Your task to perform on an android device: View the shopping cart on walmart. Add "sony triple a" to the cart on walmart Image 0: 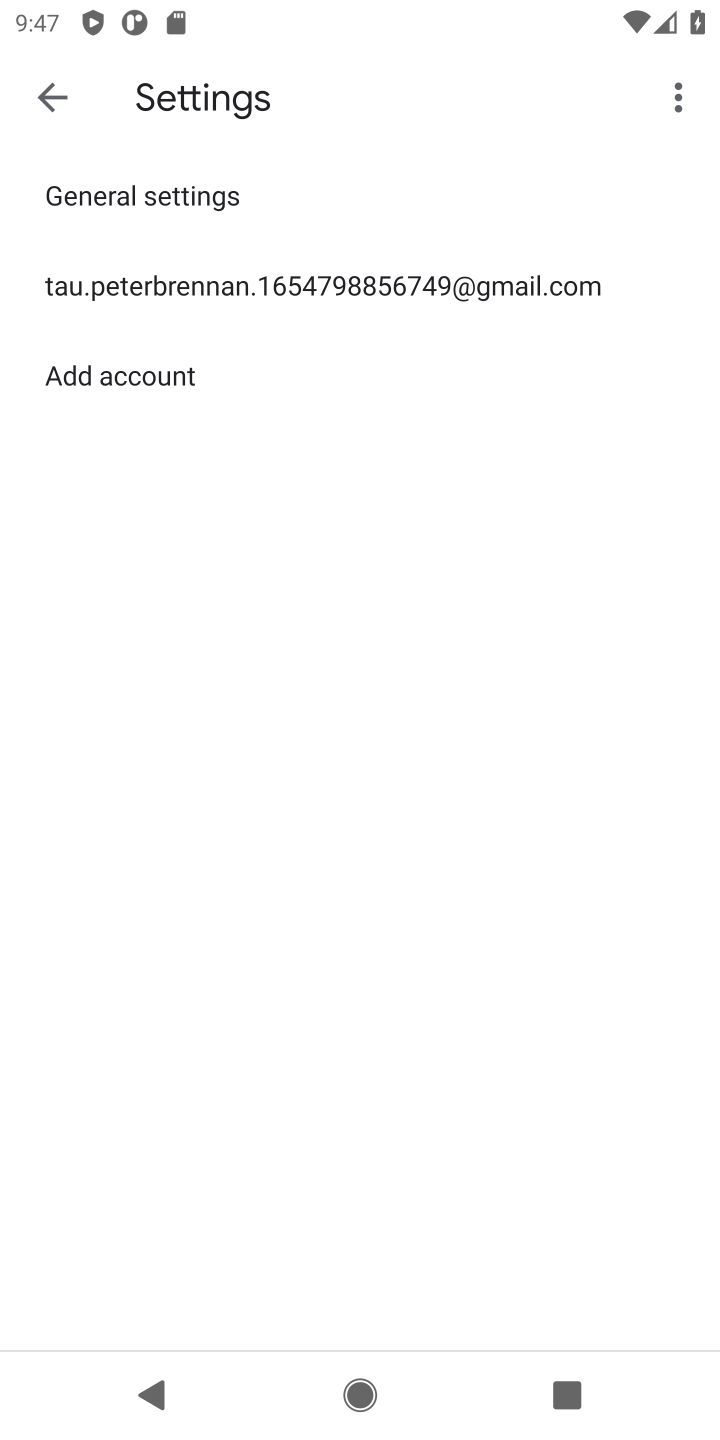
Step 0: press home button
Your task to perform on an android device: View the shopping cart on walmart. Add "sony triple a" to the cart on walmart Image 1: 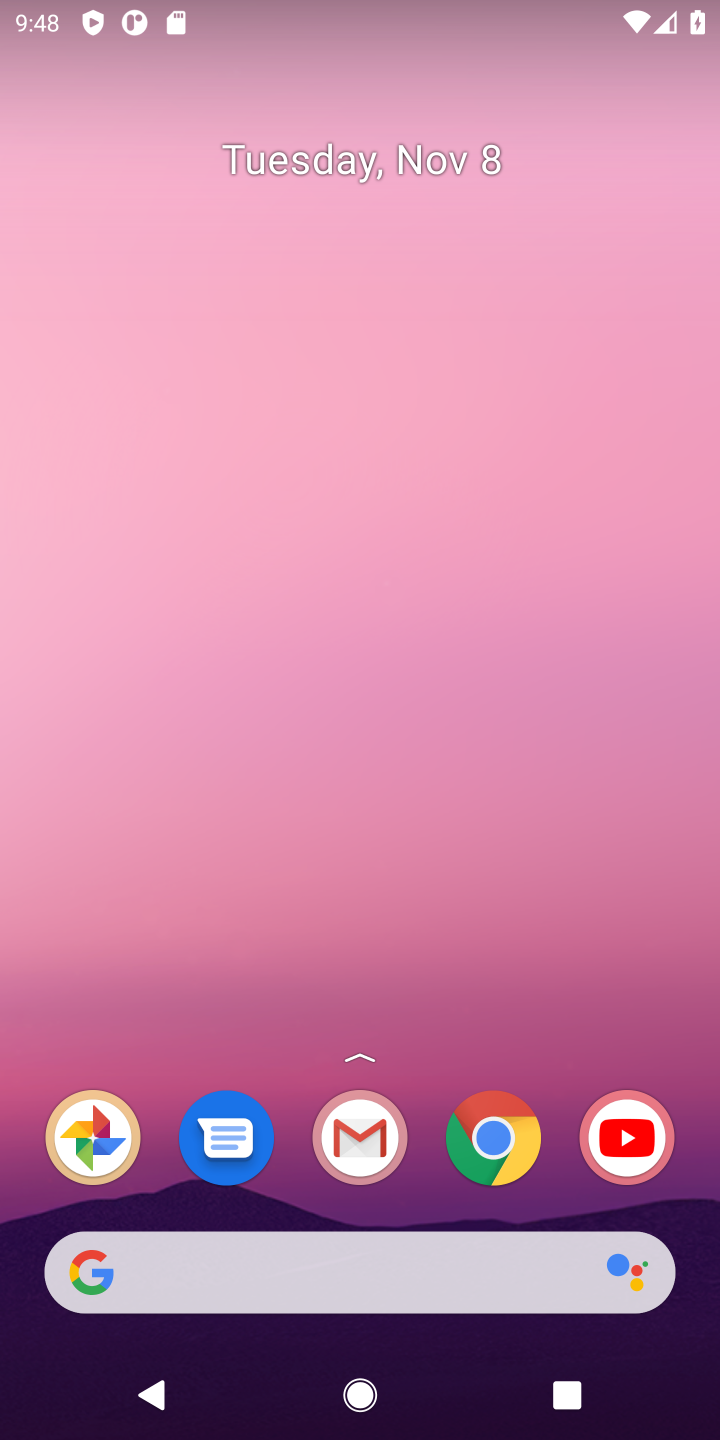
Step 1: click (482, 1150)
Your task to perform on an android device: View the shopping cart on walmart. Add "sony triple a" to the cart on walmart Image 2: 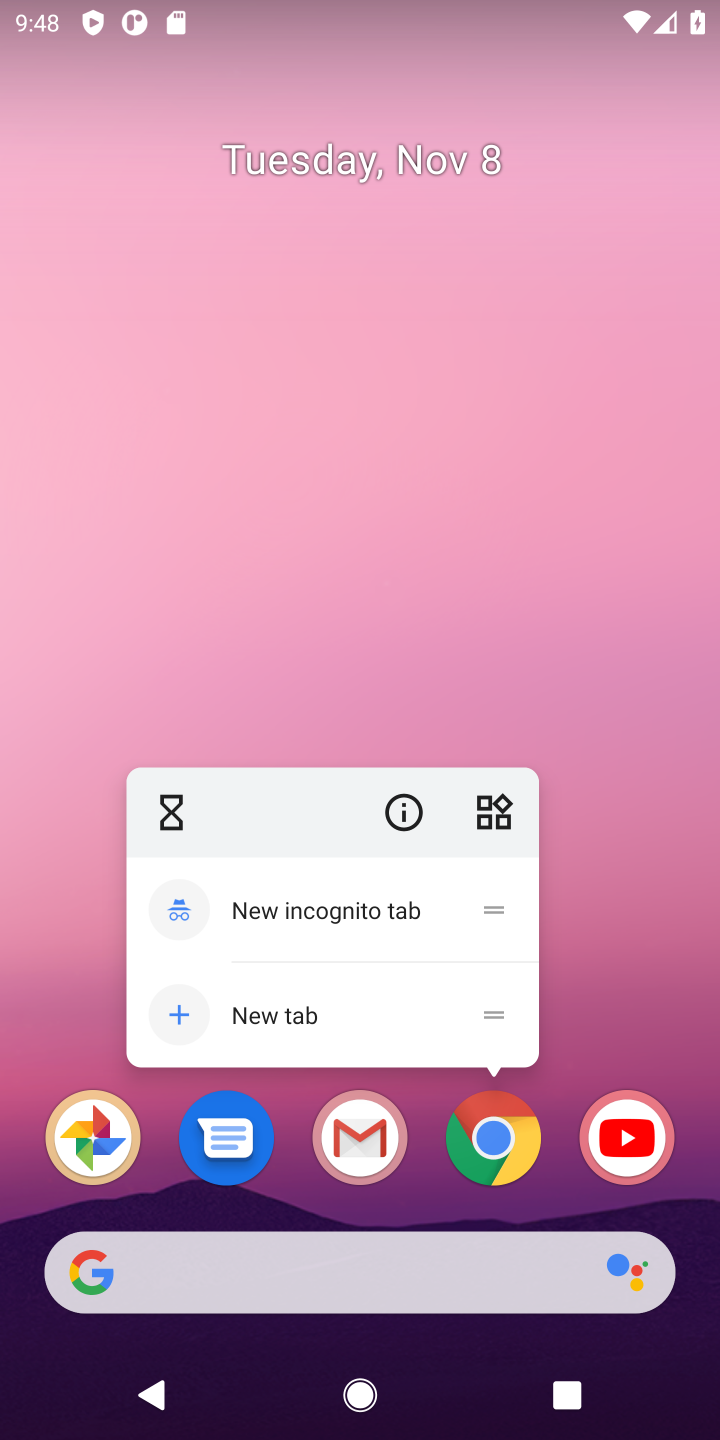
Step 2: click (510, 1120)
Your task to perform on an android device: View the shopping cart on walmart. Add "sony triple a" to the cart on walmart Image 3: 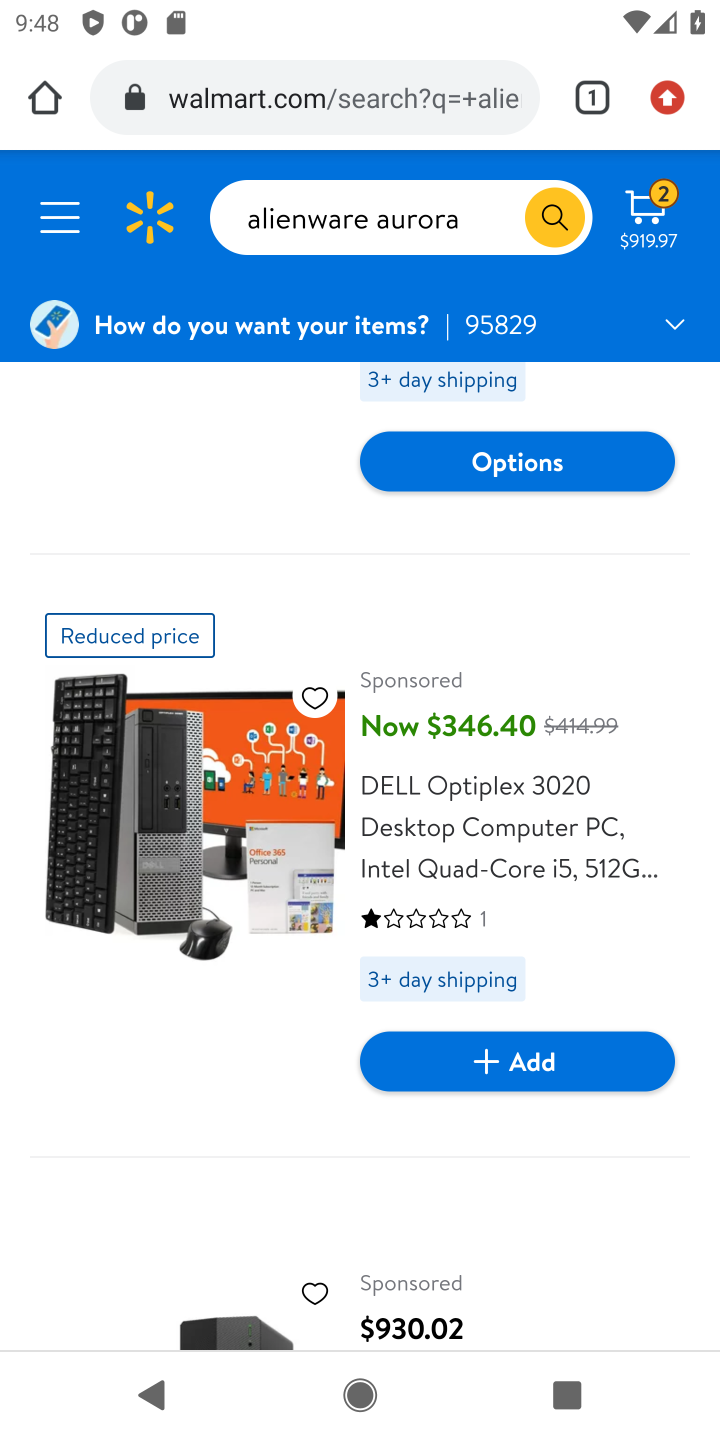
Step 3: click (492, 222)
Your task to perform on an android device: View the shopping cart on walmart. Add "sony triple a" to the cart on walmart Image 4: 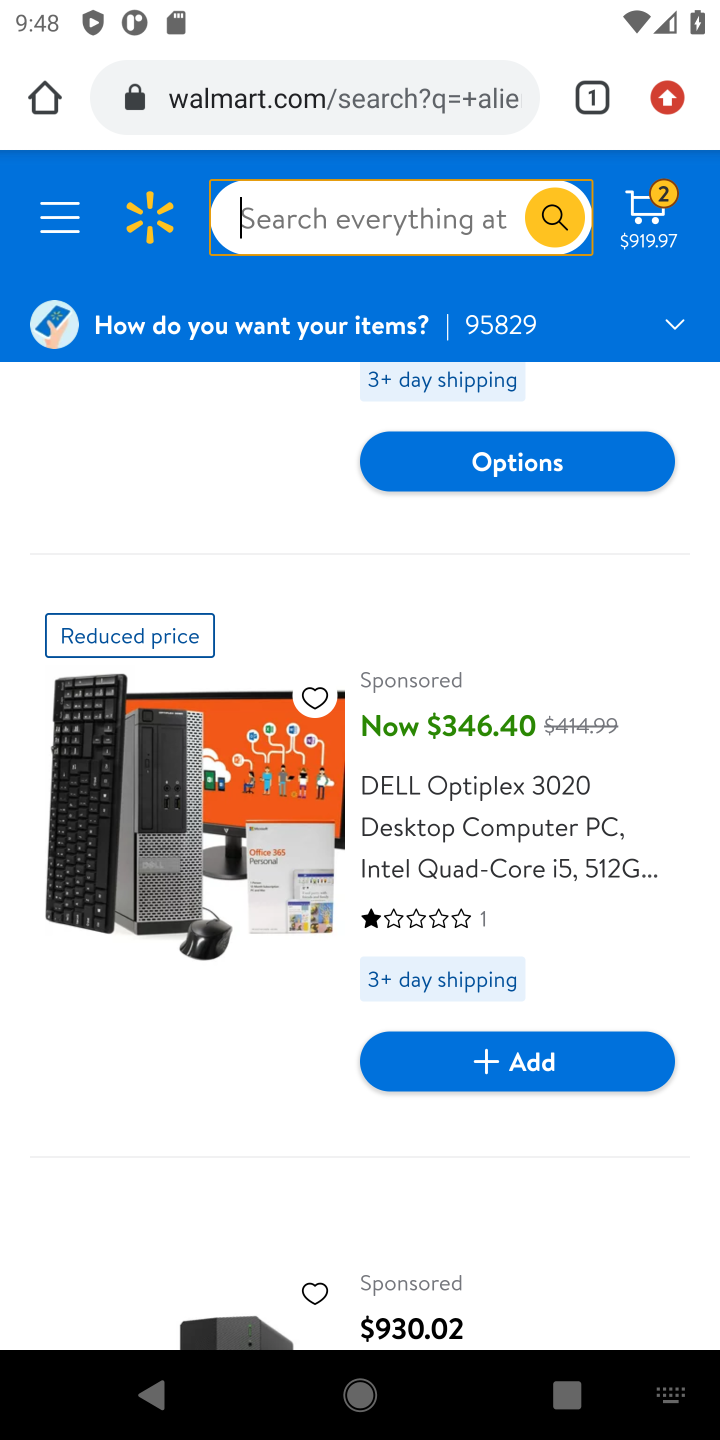
Step 4: click (414, 207)
Your task to perform on an android device: View the shopping cart on walmart. Add "sony triple a" to the cart on walmart Image 5: 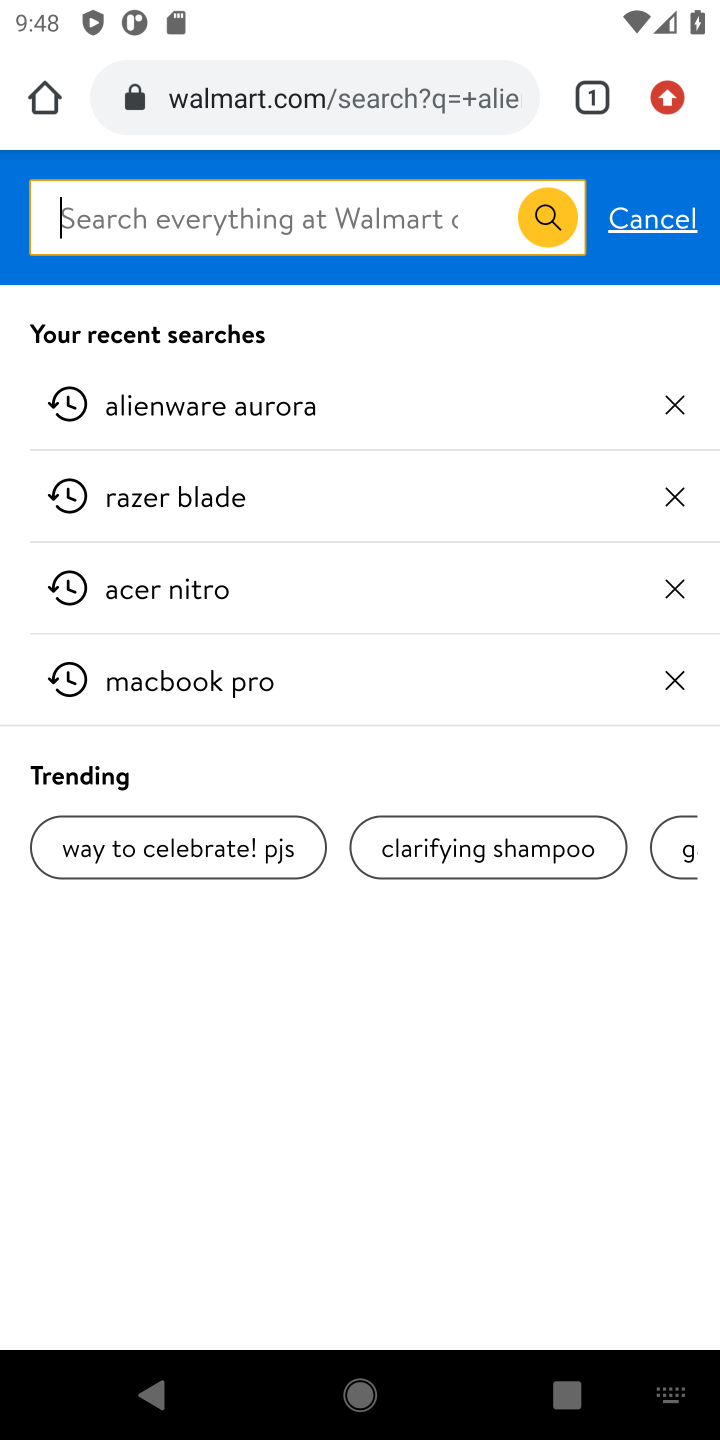
Step 5: type "sony triple a"
Your task to perform on an android device: View the shopping cart on walmart. Add "sony triple a" to the cart on walmart Image 6: 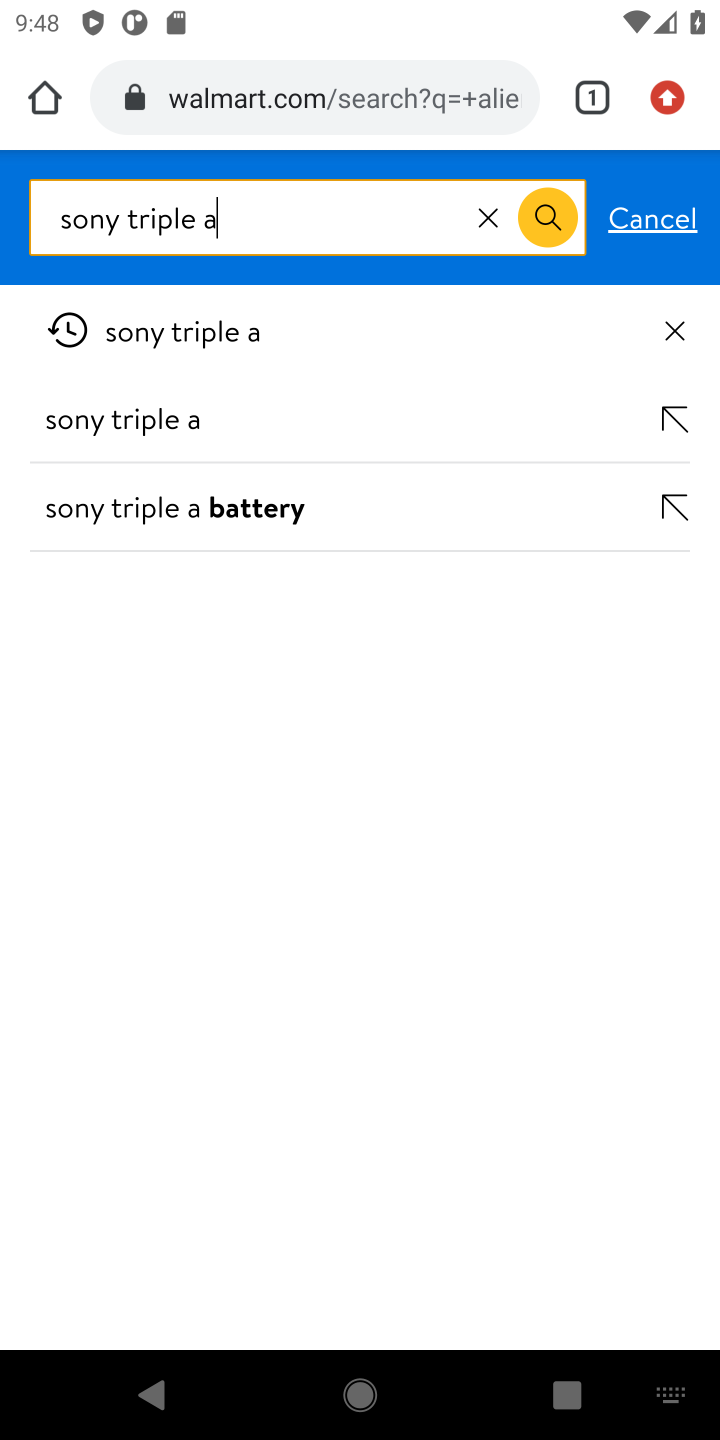
Step 6: press enter
Your task to perform on an android device: View the shopping cart on walmart. Add "sony triple a" to the cart on walmart Image 7: 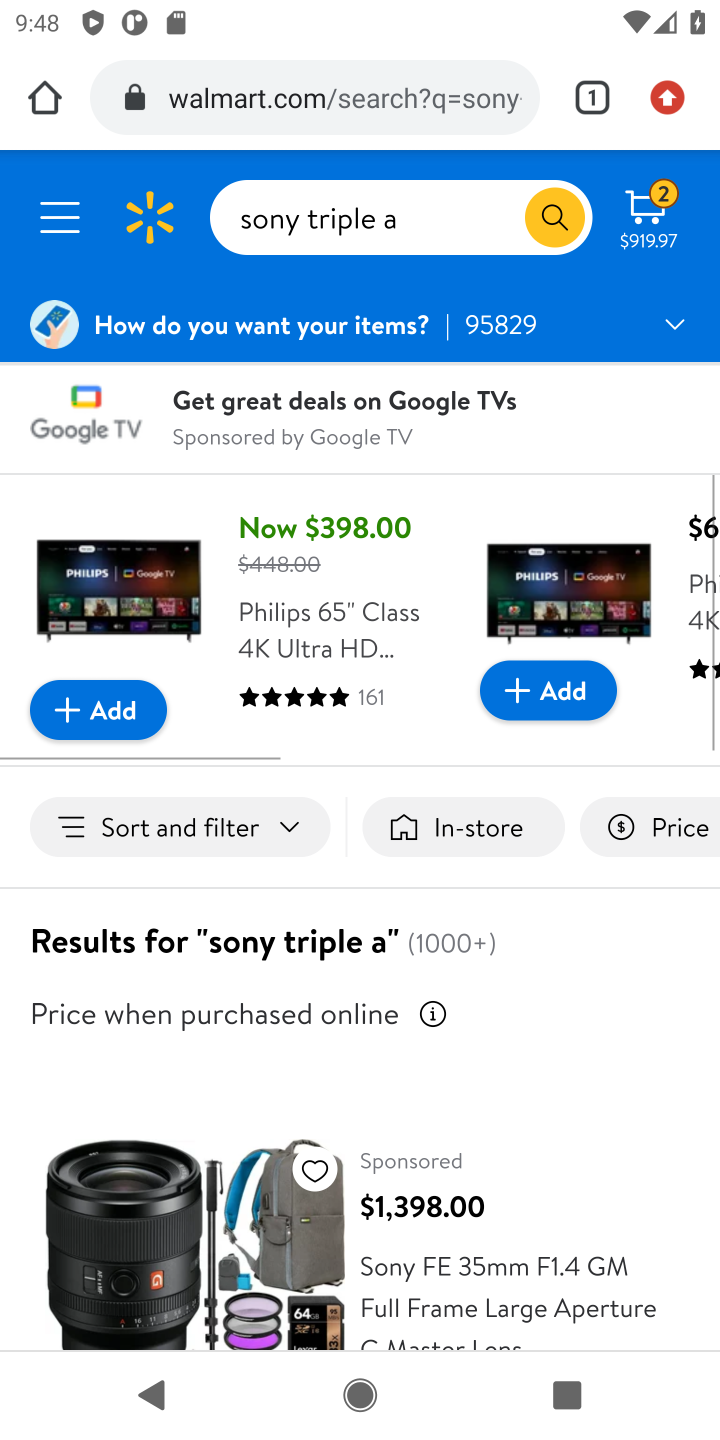
Step 7: task complete